Your task to perform on an android device: add a contact Image 0: 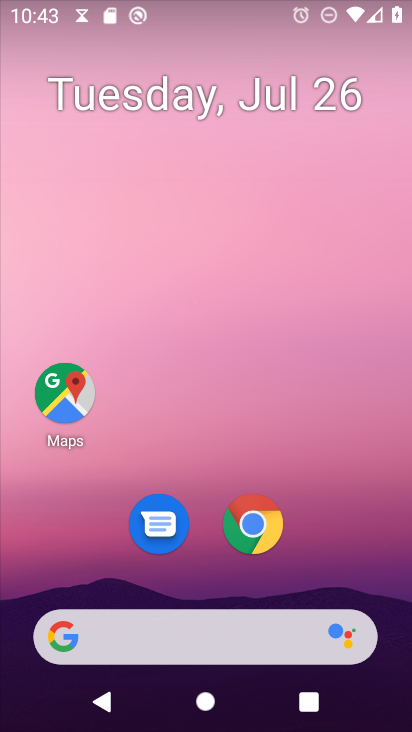
Step 0: press home button
Your task to perform on an android device: add a contact Image 1: 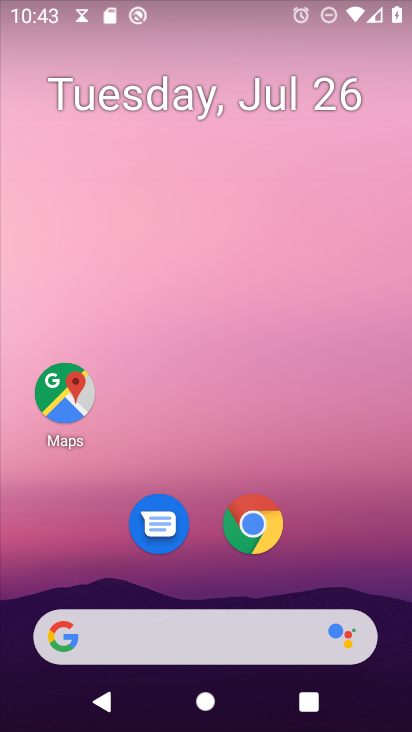
Step 1: drag from (180, 639) to (322, 193)
Your task to perform on an android device: add a contact Image 2: 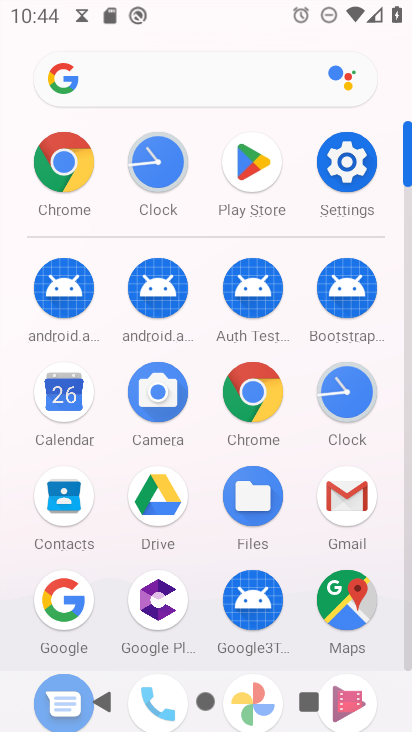
Step 2: click (66, 511)
Your task to perform on an android device: add a contact Image 3: 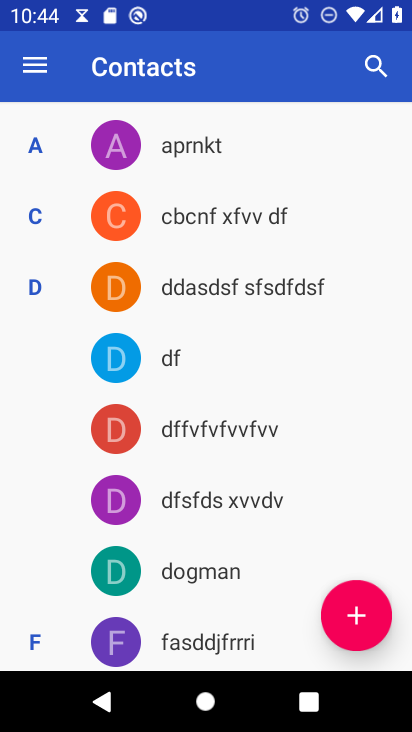
Step 3: click (363, 618)
Your task to perform on an android device: add a contact Image 4: 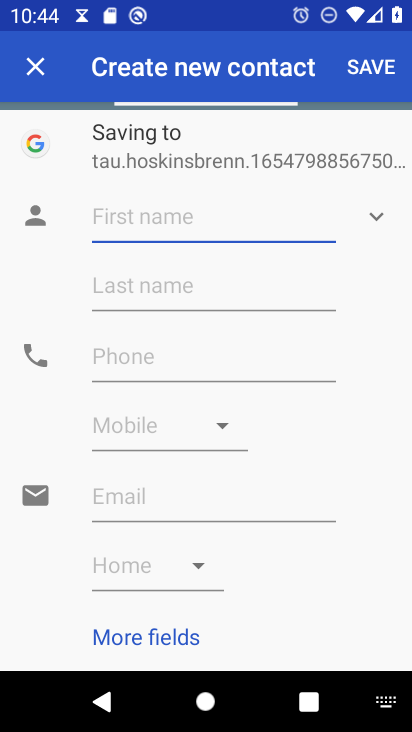
Step 4: type "rhgjkkhh"
Your task to perform on an android device: add a contact Image 5: 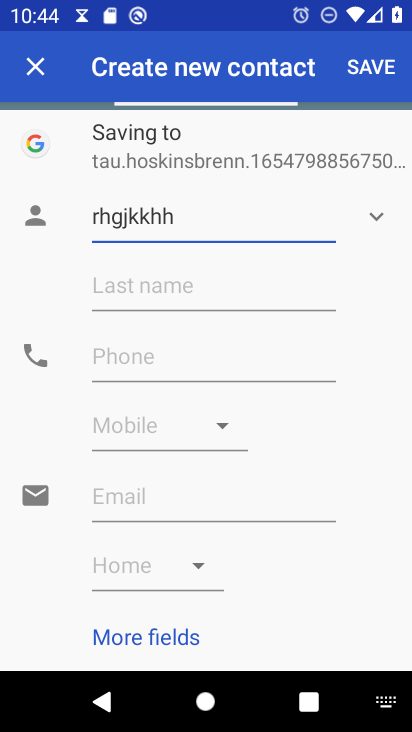
Step 5: click (140, 357)
Your task to perform on an android device: add a contact Image 6: 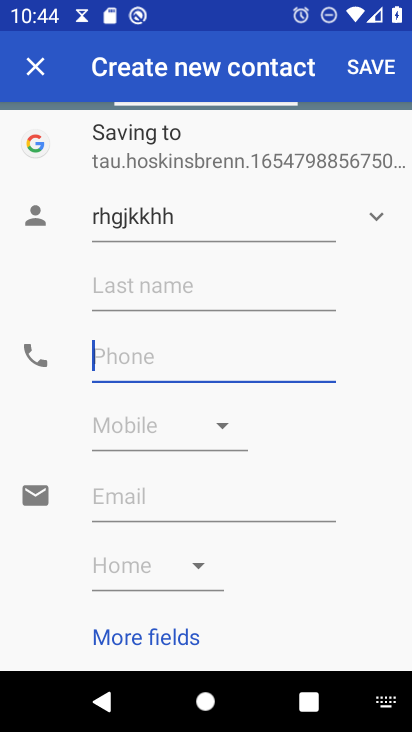
Step 6: type "18446657"
Your task to perform on an android device: add a contact Image 7: 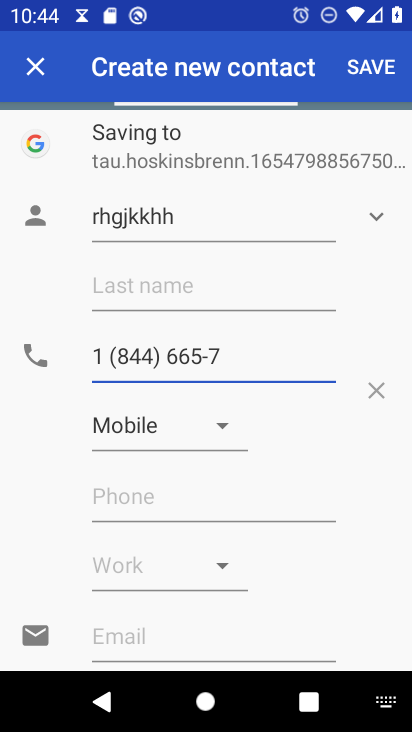
Step 7: click (379, 70)
Your task to perform on an android device: add a contact Image 8: 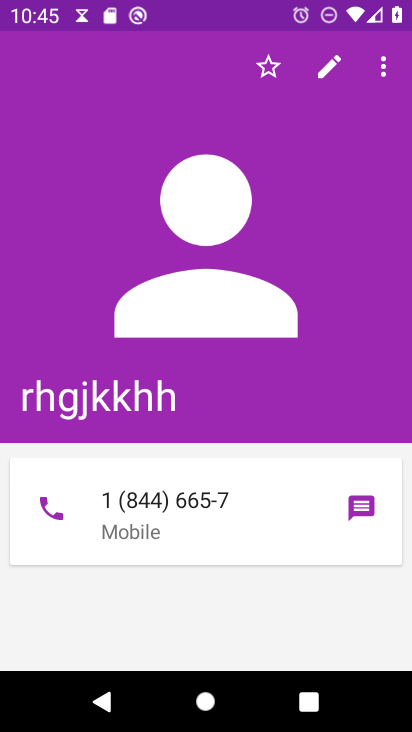
Step 8: task complete